Your task to perform on an android device: turn off data saver in the chrome app Image 0: 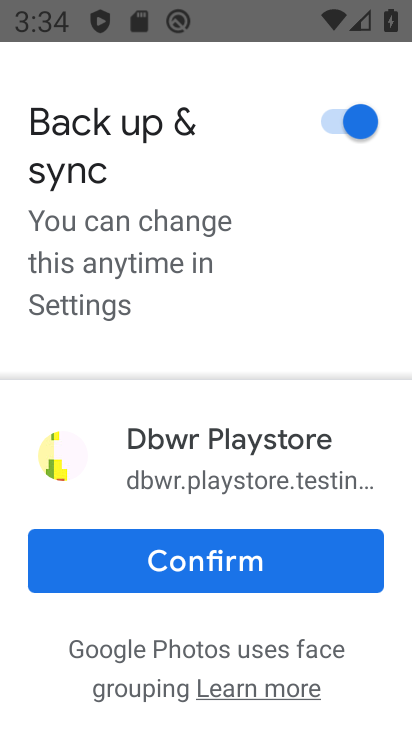
Step 0: press home button
Your task to perform on an android device: turn off data saver in the chrome app Image 1: 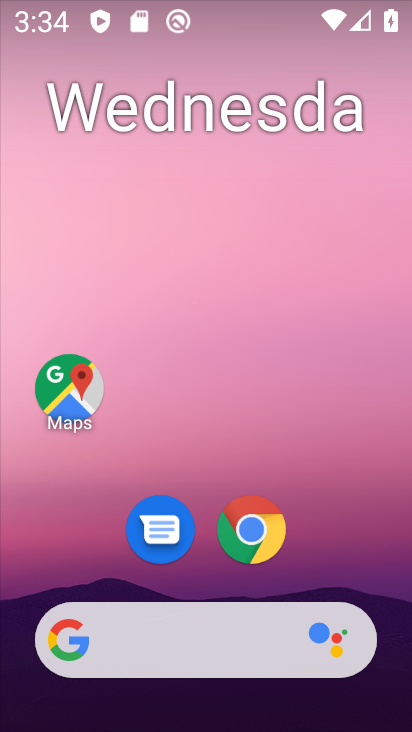
Step 1: click (264, 518)
Your task to perform on an android device: turn off data saver in the chrome app Image 2: 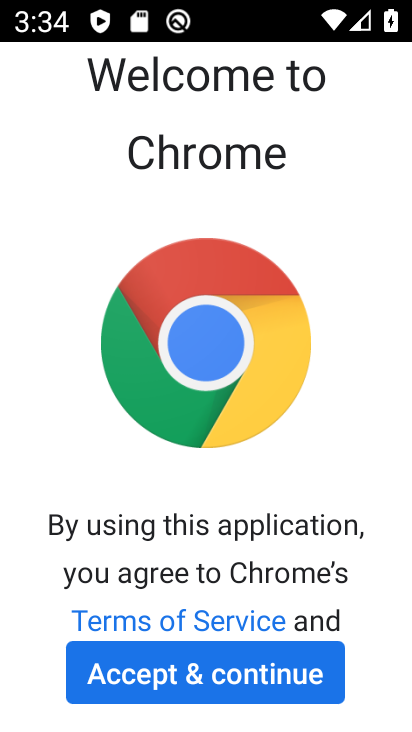
Step 2: click (249, 673)
Your task to perform on an android device: turn off data saver in the chrome app Image 3: 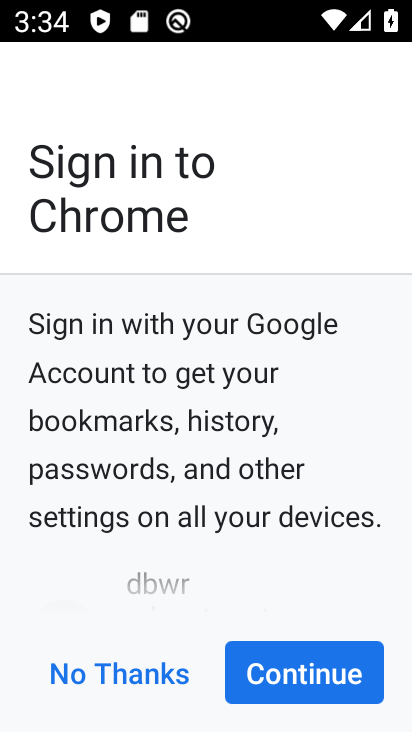
Step 3: click (319, 686)
Your task to perform on an android device: turn off data saver in the chrome app Image 4: 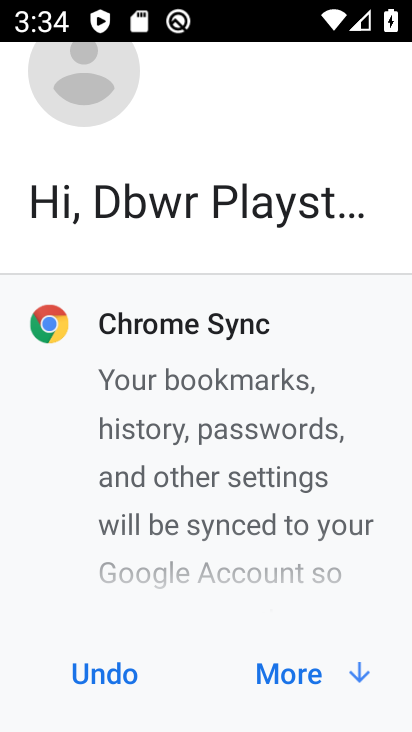
Step 4: click (320, 688)
Your task to perform on an android device: turn off data saver in the chrome app Image 5: 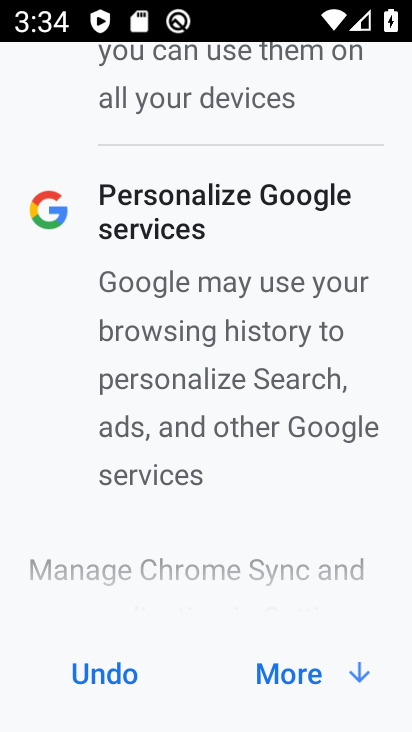
Step 5: click (317, 685)
Your task to perform on an android device: turn off data saver in the chrome app Image 6: 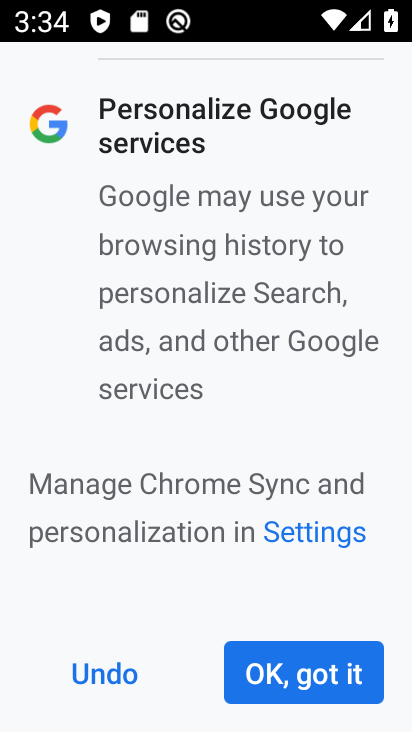
Step 6: click (317, 685)
Your task to perform on an android device: turn off data saver in the chrome app Image 7: 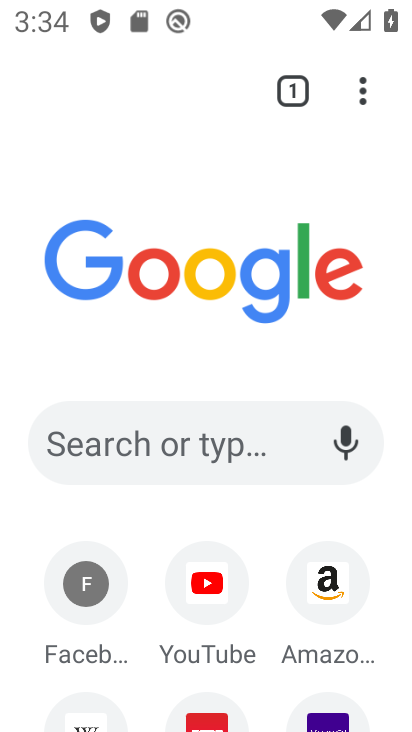
Step 7: drag from (367, 111) to (231, 581)
Your task to perform on an android device: turn off data saver in the chrome app Image 8: 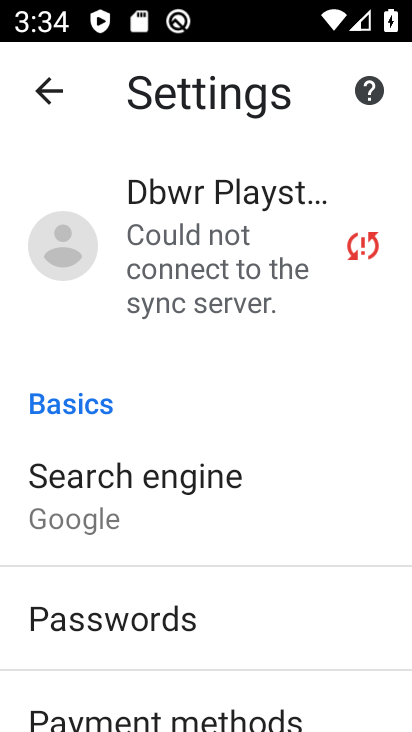
Step 8: drag from (187, 642) to (301, 176)
Your task to perform on an android device: turn off data saver in the chrome app Image 9: 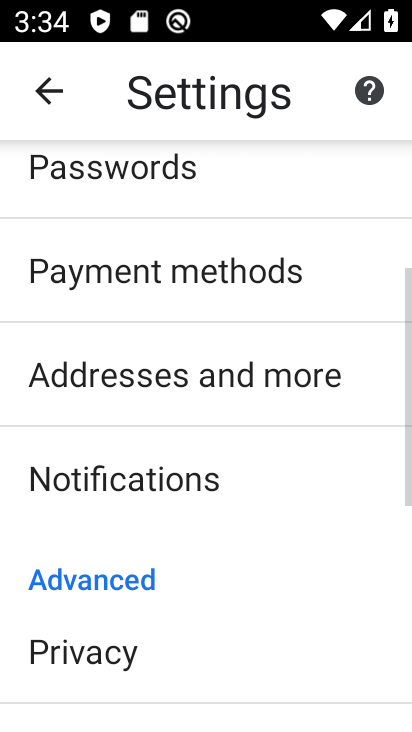
Step 9: drag from (162, 695) to (264, 239)
Your task to perform on an android device: turn off data saver in the chrome app Image 10: 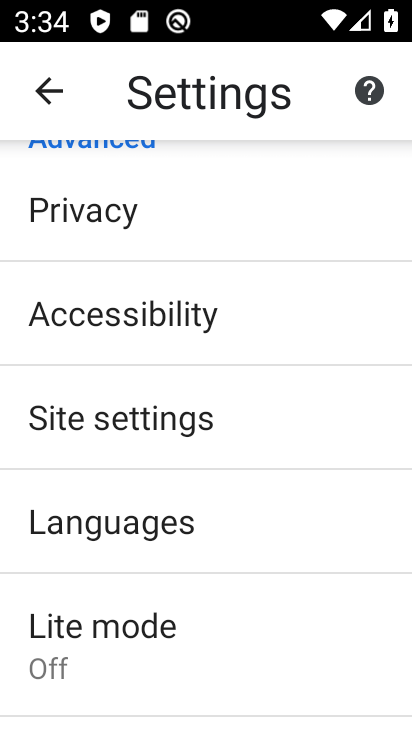
Step 10: click (206, 648)
Your task to perform on an android device: turn off data saver in the chrome app Image 11: 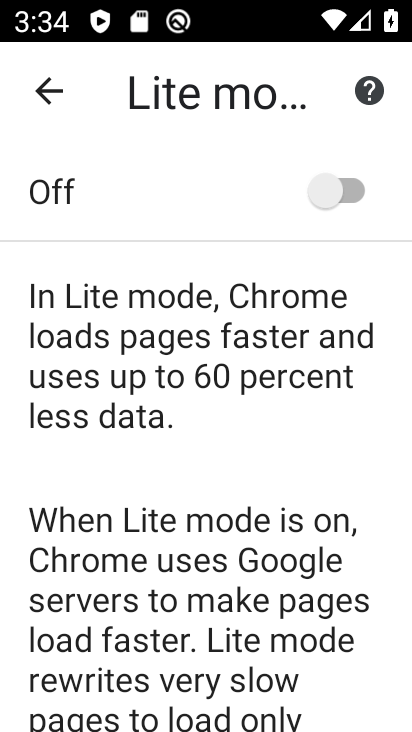
Step 11: task complete